Your task to perform on an android device: Open calendar and show me the second week of next month Image 0: 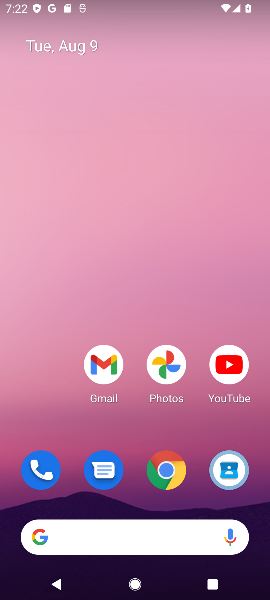
Step 0: drag from (104, 535) to (144, 184)
Your task to perform on an android device: Open calendar and show me the second week of next month Image 1: 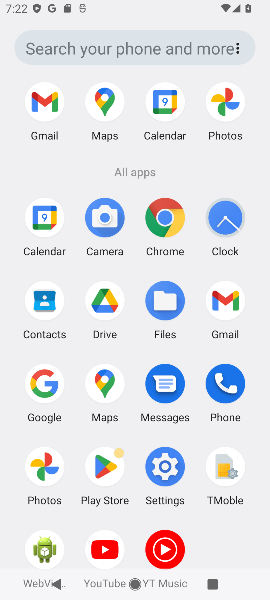
Step 1: click (167, 113)
Your task to perform on an android device: Open calendar and show me the second week of next month Image 2: 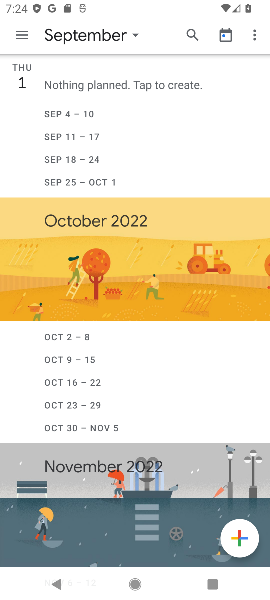
Step 2: click (90, 39)
Your task to perform on an android device: Open calendar and show me the second week of next month Image 3: 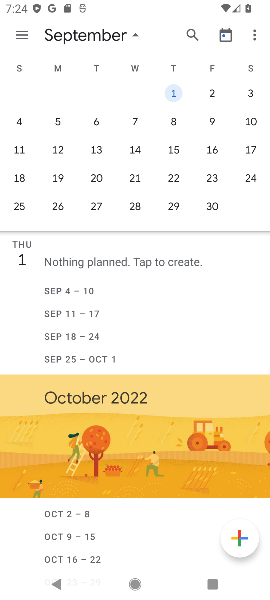
Step 3: click (17, 120)
Your task to perform on an android device: Open calendar and show me the second week of next month Image 4: 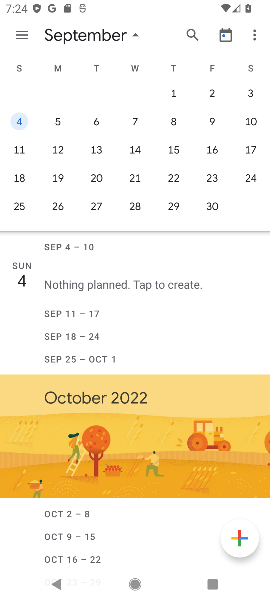
Step 4: task complete